Your task to perform on an android device: Open Google Image 0: 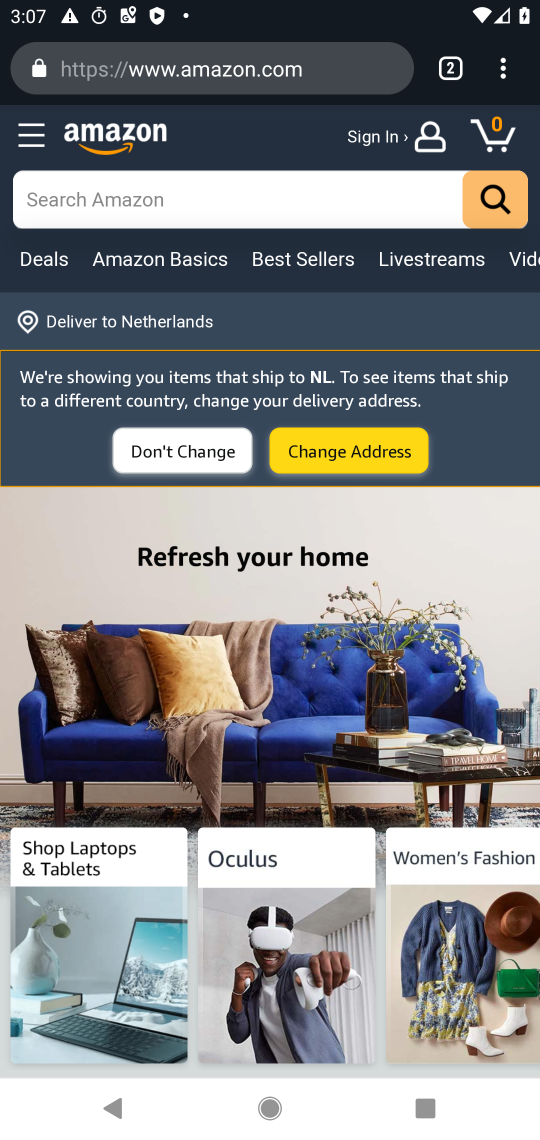
Step 0: press home button
Your task to perform on an android device: Open Google Image 1: 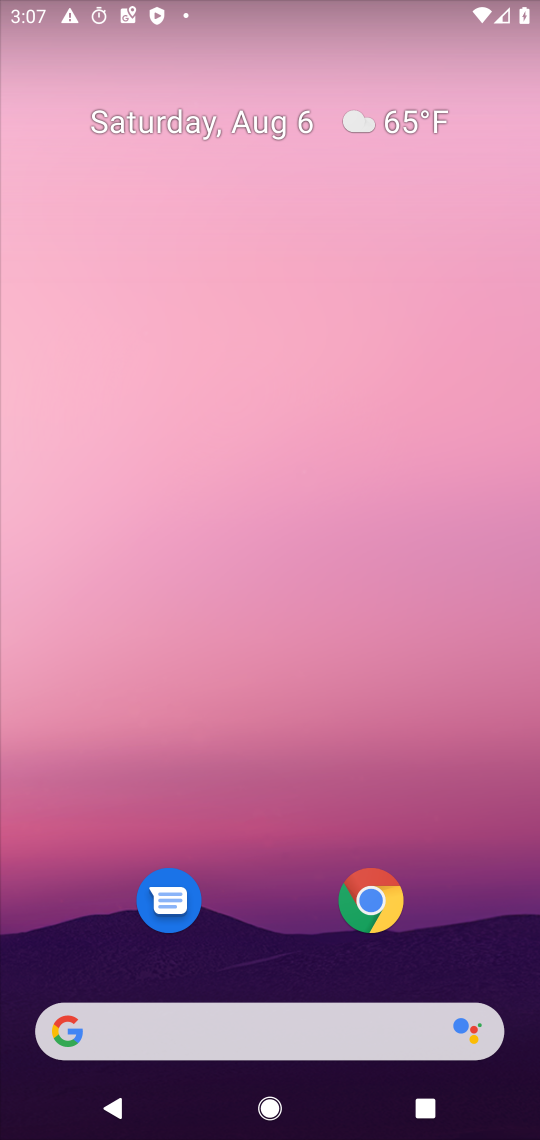
Step 1: drag from (257, 899) to (280, 58)
Your task to perform on an android device: Open Google Image 2: 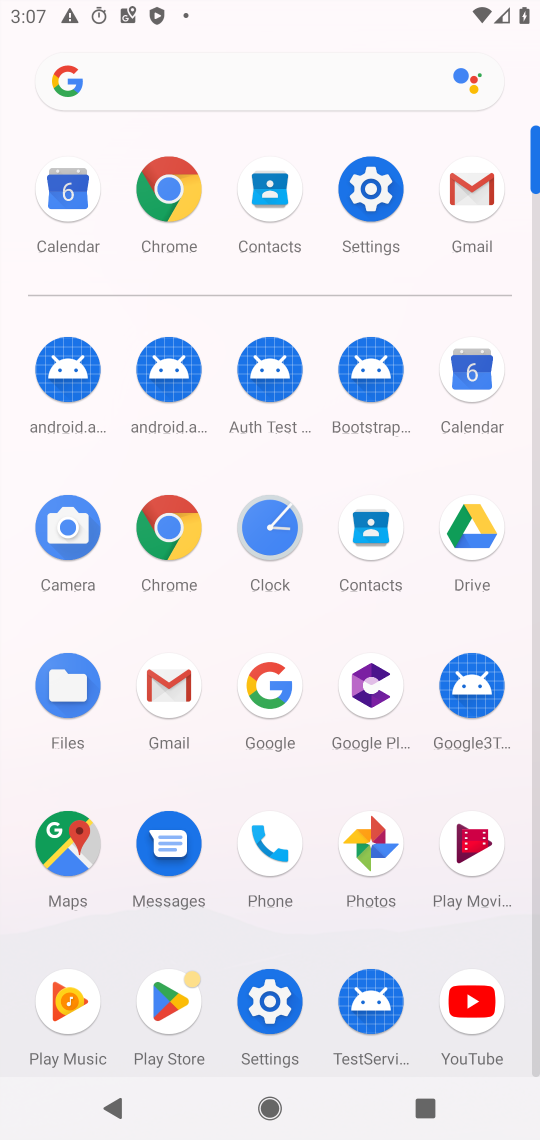
Step 2: click (260, 673)
Your task to perform on an android device: Open Google Image 3: 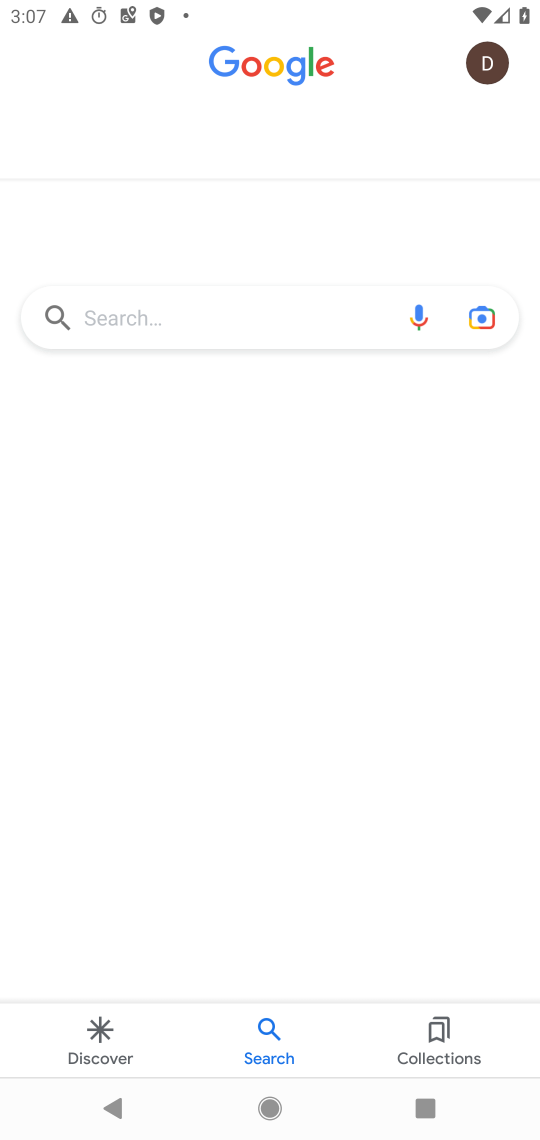
Step 3: task complete